Your task to perform on an android device: Turn off the flashlight Image 0: 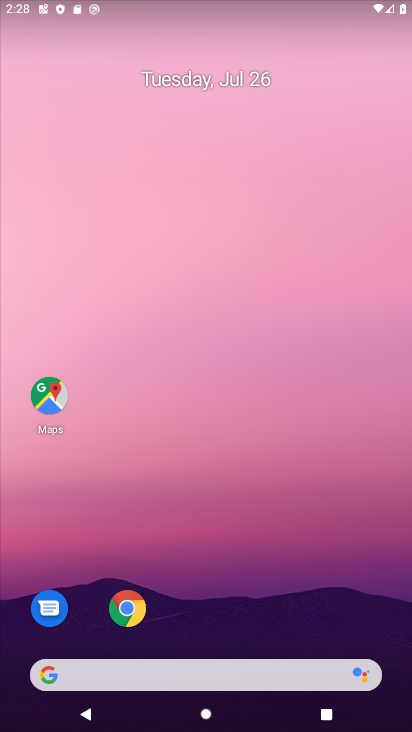
Step 0: drag from (240, 654) to (258, 114)
Your task to perform on an android device: Turn off the flashlight Image 1: 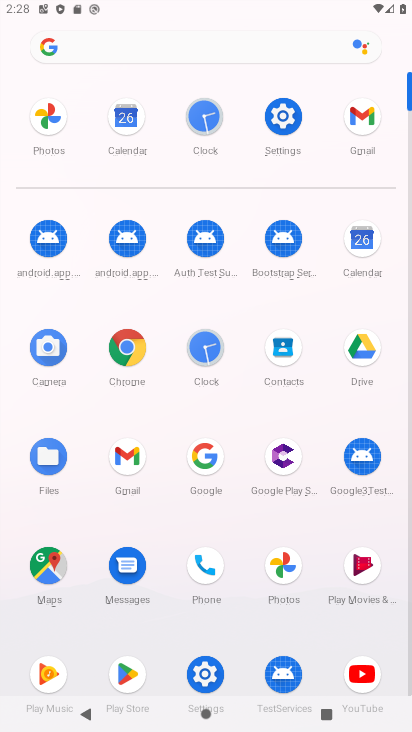
Step 1: click (274, 109)
Your task to perform on an android device: Turn off the flashlight Image 2: 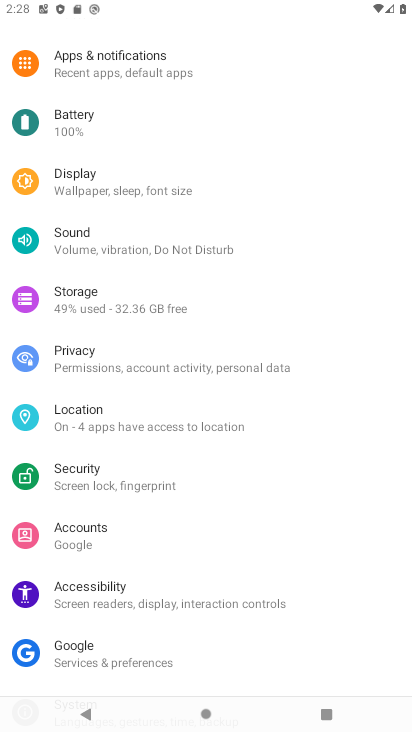
Step 2: task complete